Your task to perform on an android device: open wifi settings Image 0: 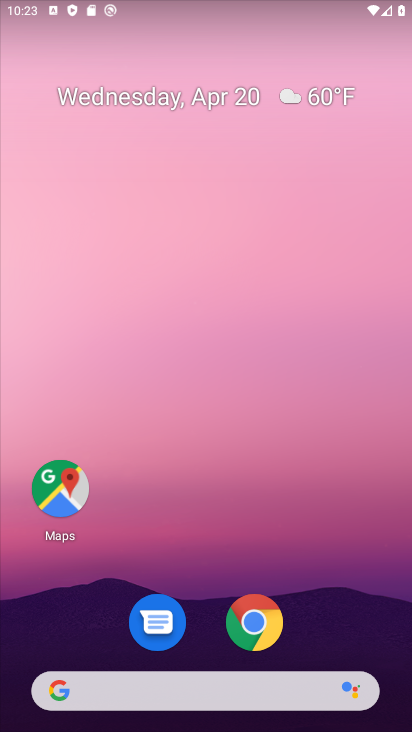
Step 0: drag from (339, 568) to (265, 94)
Your task to perform on an android device: open wifi settings Image 1: 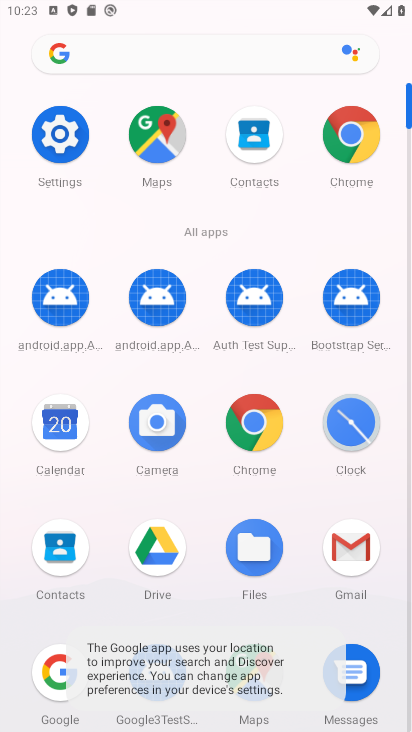
Step 1: click (47, 134)
Your task to perform on an android device: open wifi settings Image 2: 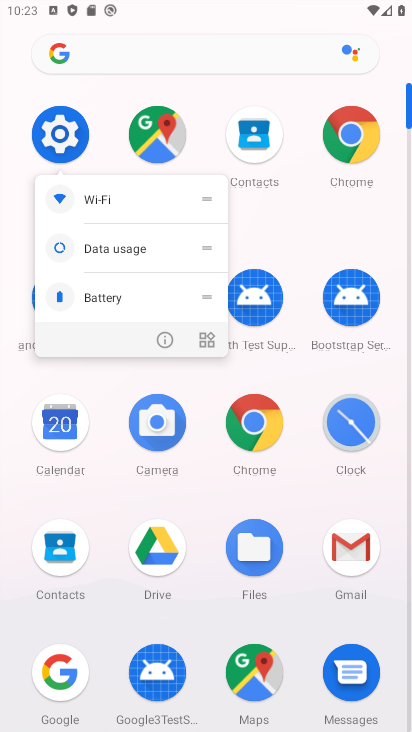
Step 2: click (63, 144)
Your task to perform on an android device: open wifi settings Image 3: 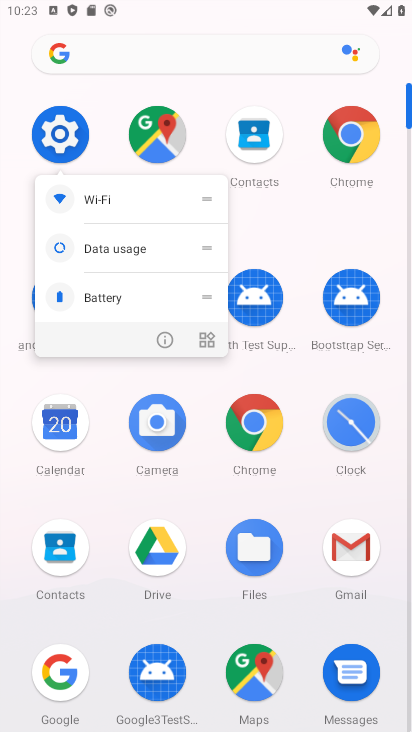
Step 3: click (54, 132)
Your task to perform on an android device: open wifi settings Image 4: 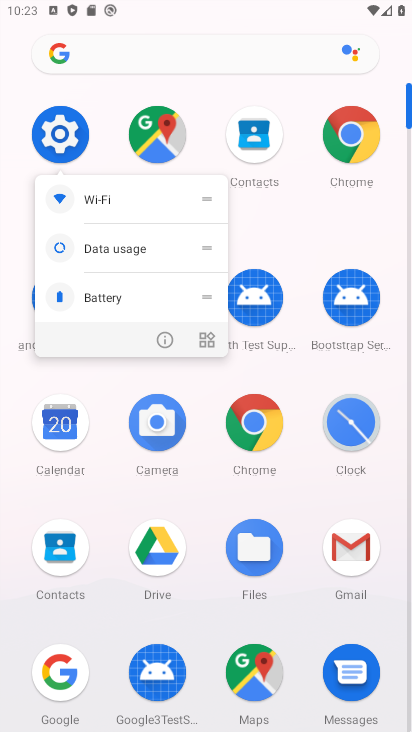
Step 4: click (53, 132)
Your task to perform on an android device: open wifi settings Image 5: 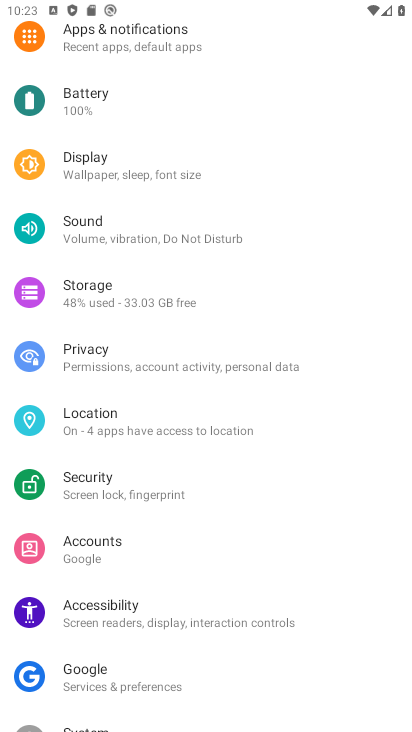
Step 5: drag from (198, 218) to (250, 535)
Your task to perform on an android device: open wifi settings Image 6: 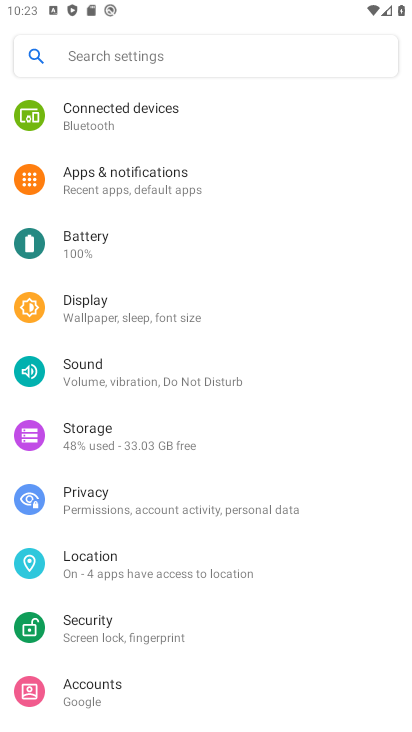
Step 6: drag from (156, 215) to (97, 503)
Your task to perform on an android device: open wifi settings Image 7: 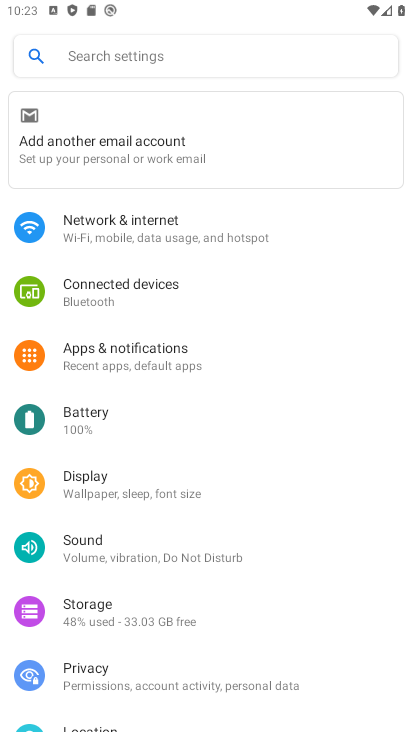
Step 7: drag from (134, 315) to (46, 586)
Your task to perform on an android device: open wifi settings Image 8: 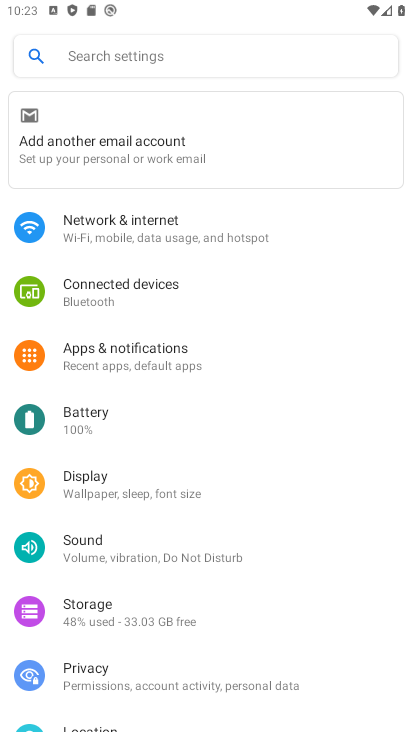
Step 8: click (203, 229)
Your task to perform on an android device: open wifi settings Image 9: 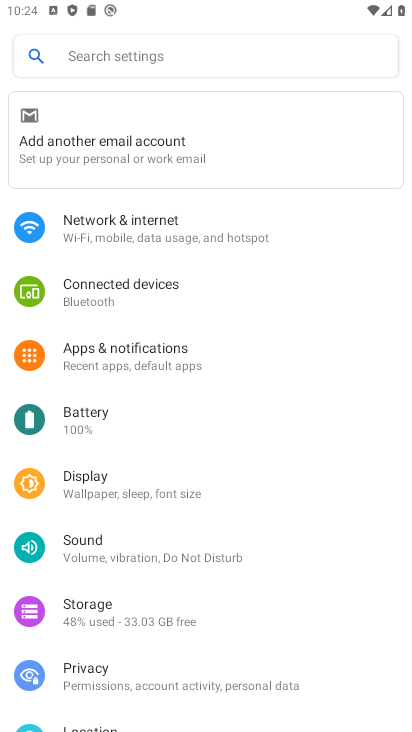
Step 9: click (36, 226)
Your task to perform on an android device: open wifi settings Image 10: 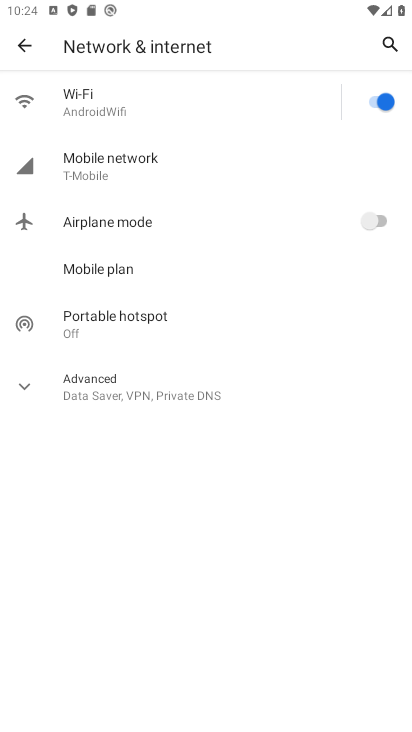
Step 10: click (54, 102)
Your task to perform on an android device: open wifi settings Image 11: 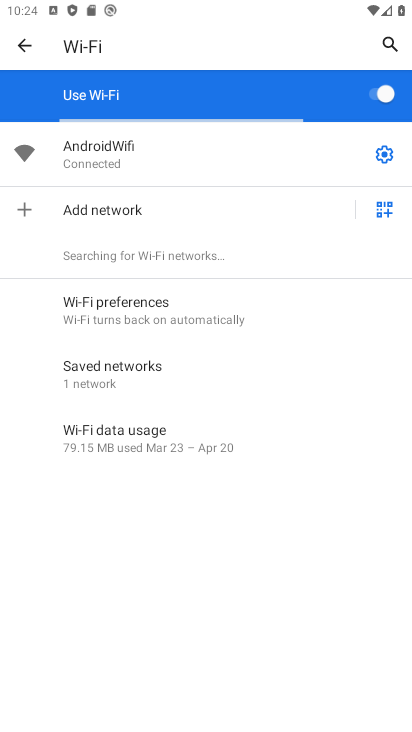
Step 11: task complete